Your task to perform on an android device: open app "NewsBreak: Local News & Alerts" (install if not already installed) Image 0: 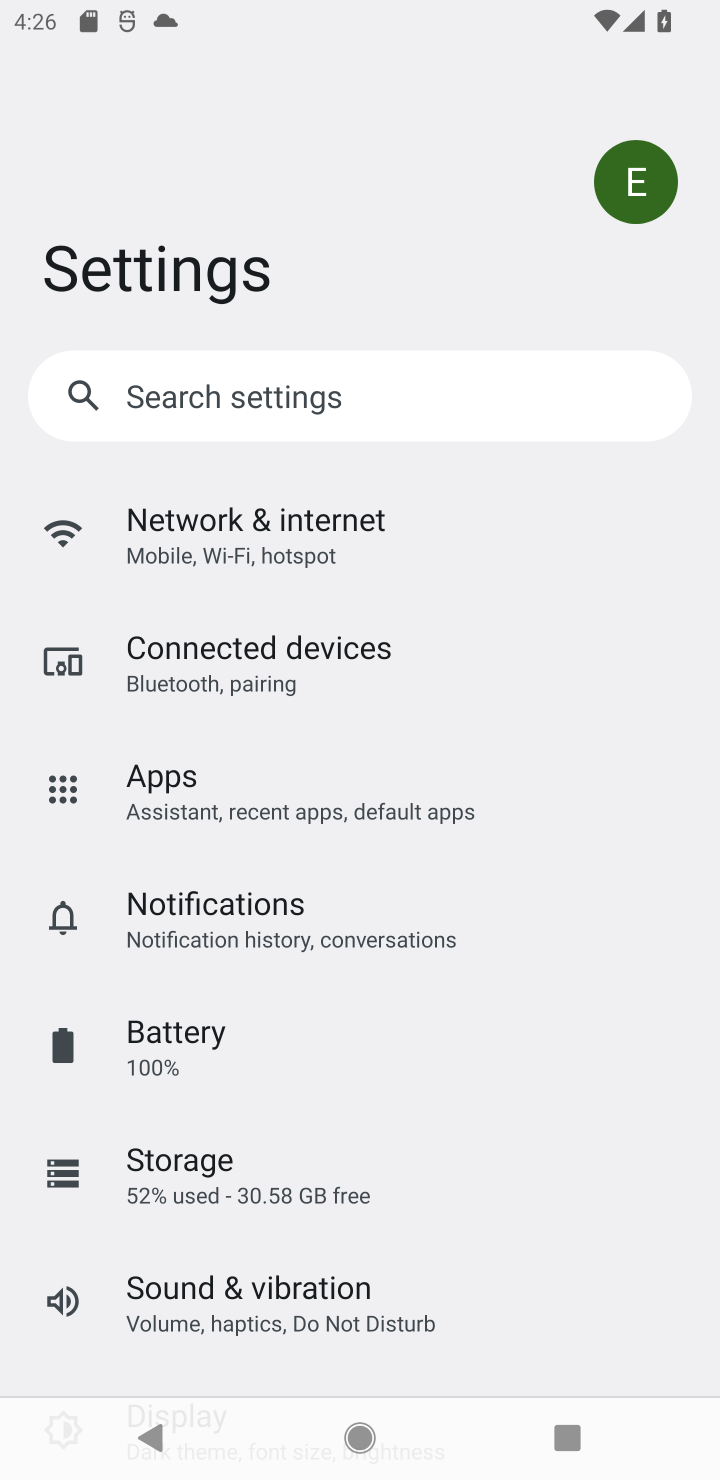
Step 0: press home button
Your task to perform on an android device: open app "NewsBreak: Local News & Alerts" (install if not already installed) Image 1: 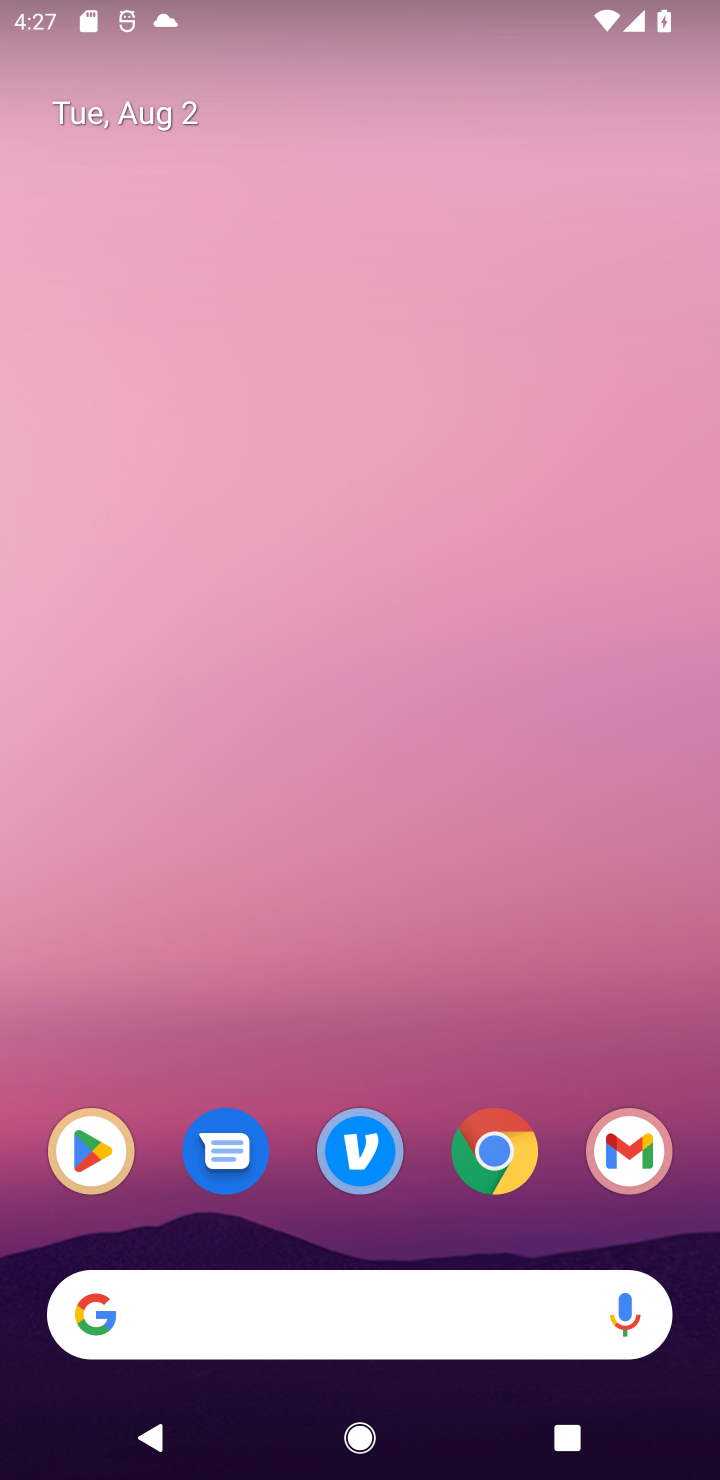
Step 1: drag from (316, 1245) to (466, 343)
Your task to perform on an android device: open app "NewsBreak: Local News & Alerts" (install if not already installed) Image 2: 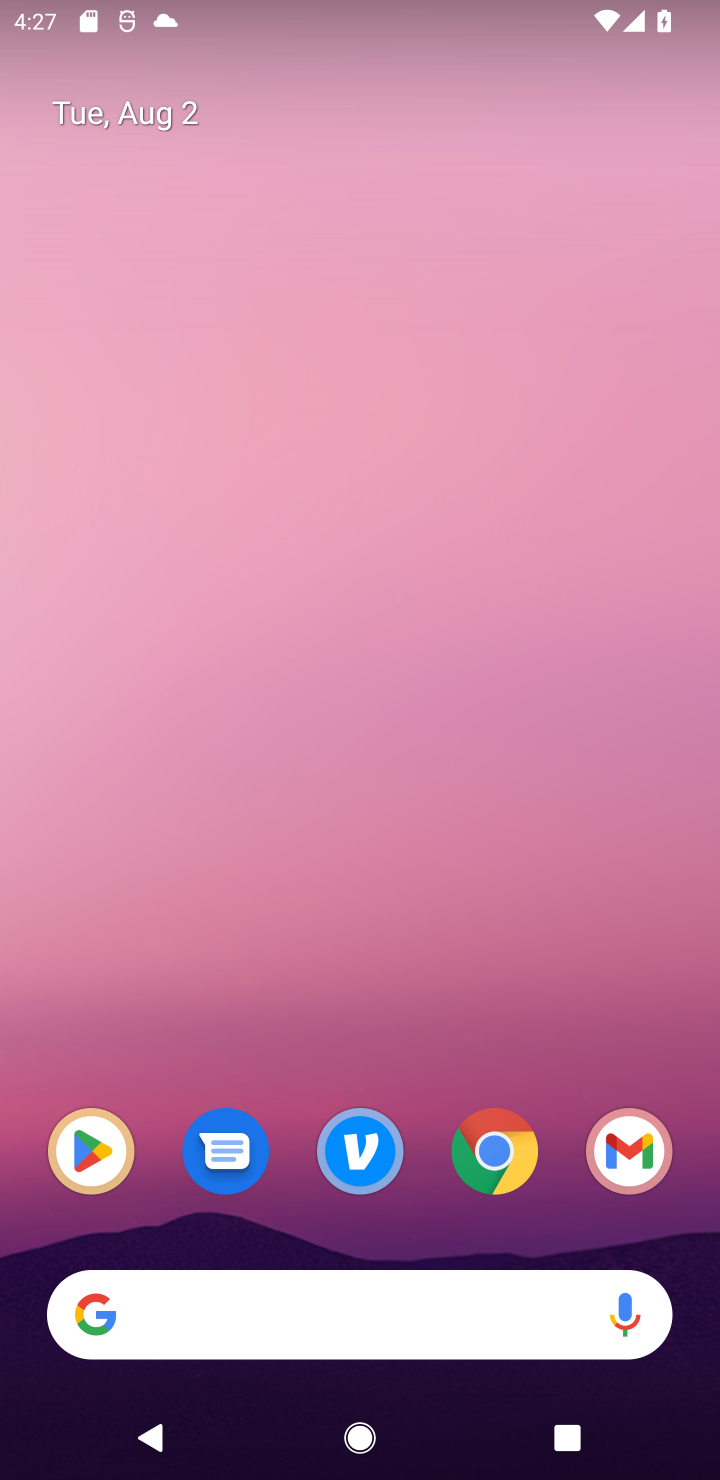
Step 2: click (466, 339)
Your task to perform on an android device: open app "NewsBreak: Local News & Alerts" (install if not already installed) Image 3: 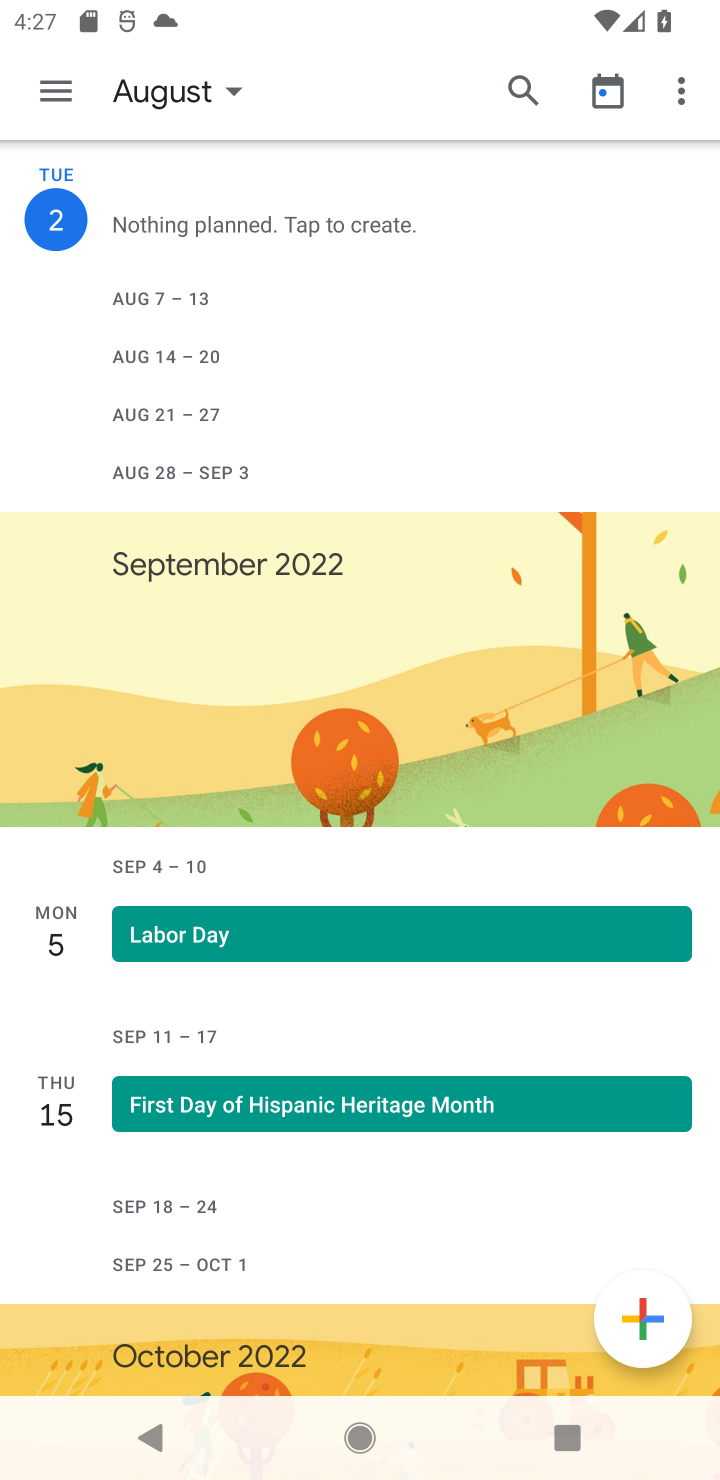
Step 3: press home button
Your task to perform on an android device: open app "NewsBreak: Local News & Alerts" (install if not already installed) Image 4: 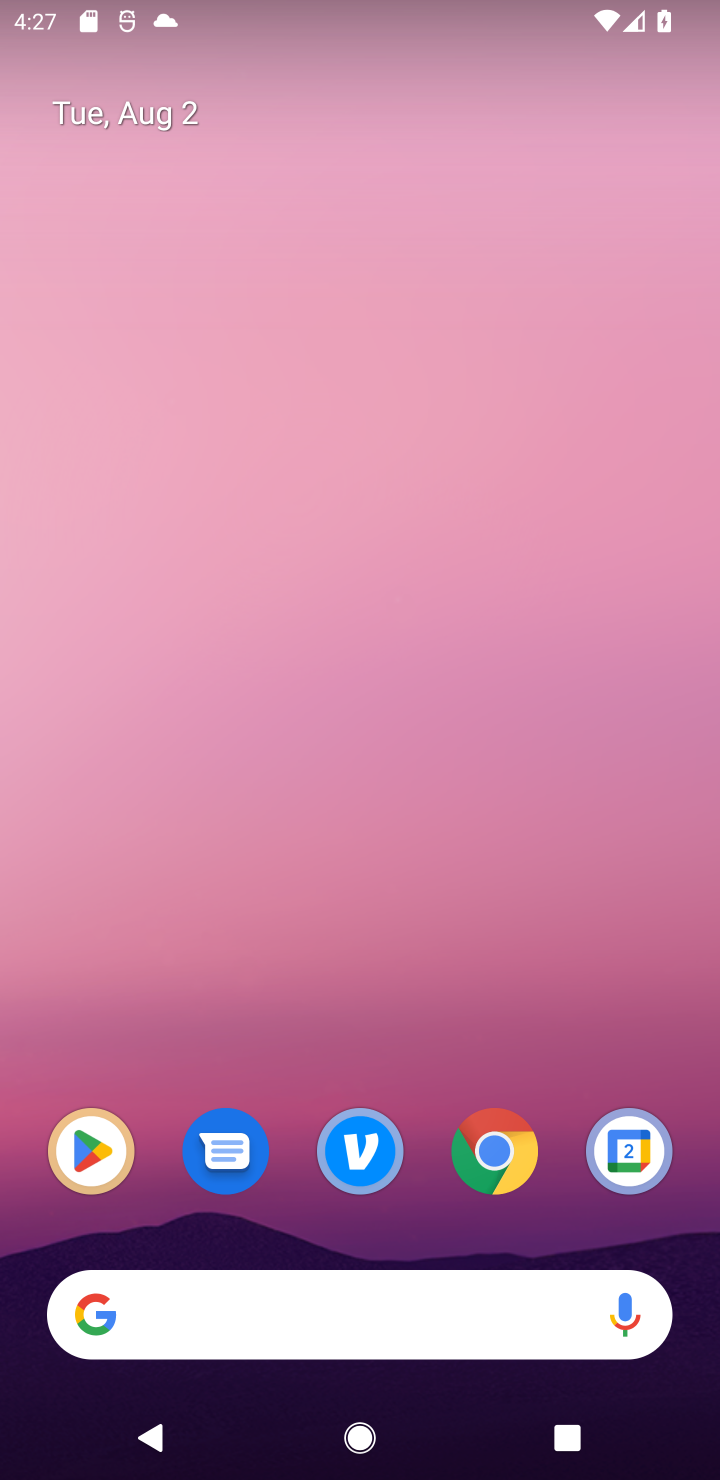
Step 4: drag from (269, 1170) to (569, 130)
Your task to perform on an android device: open app "NewsBreak: Local News & Alerts" (install if not already installed) Image 5: 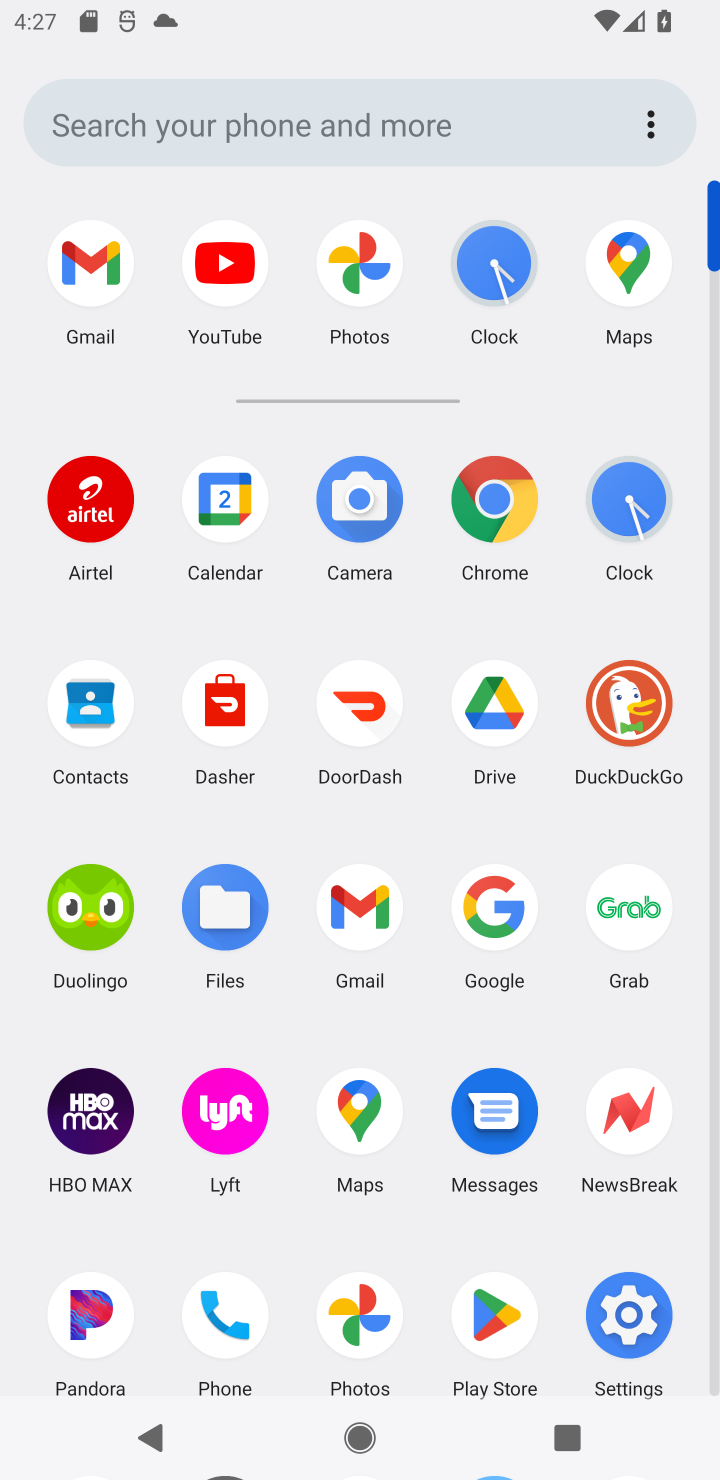
Step 5: click (617, 1119)
Your task to perform on an android device: open app "NewsBreak: Local News & Alerts" (install if not already installed) Image 6: 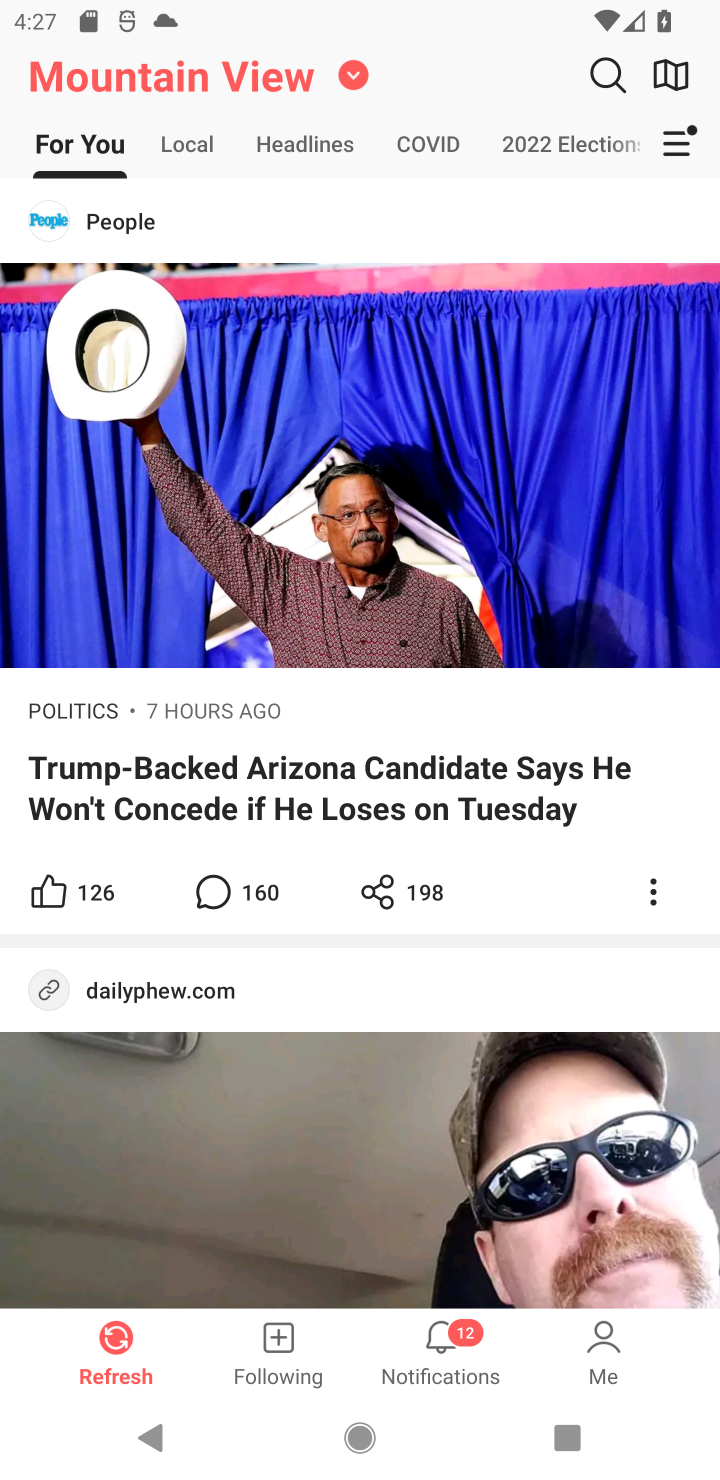
Step 6: task complete